Your task to perform on an android device: turn notification dots on Image 0: 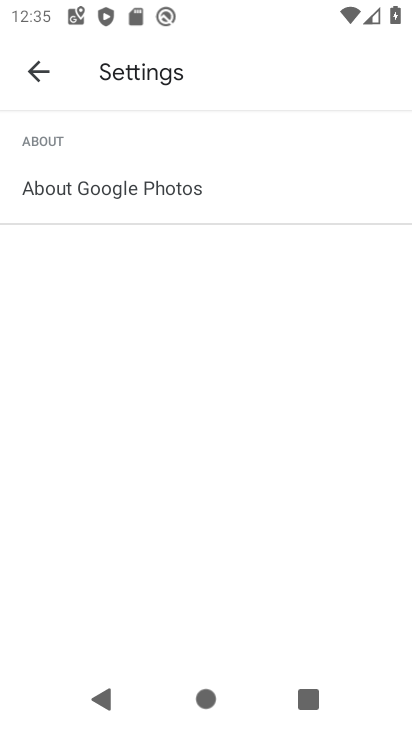
Step 0: press home button
Your task to perform on an android device: turn notification dots on Image 1: 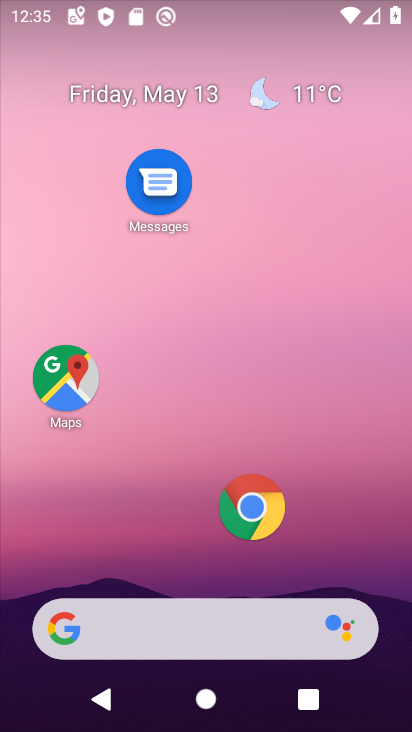
Step 1: drag from (212, 591) to (255, 28)
Your task to perform on an android device: turn notification dots on Image 2: 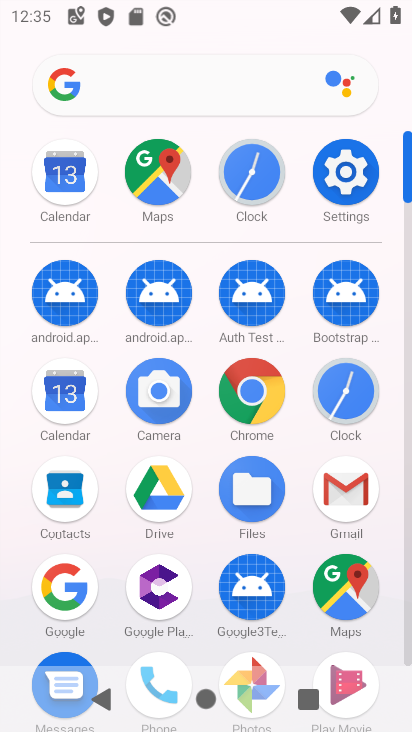
Step 2: click (336, 204)
Your task to perform on an android device: turn notification dots on Image 3: 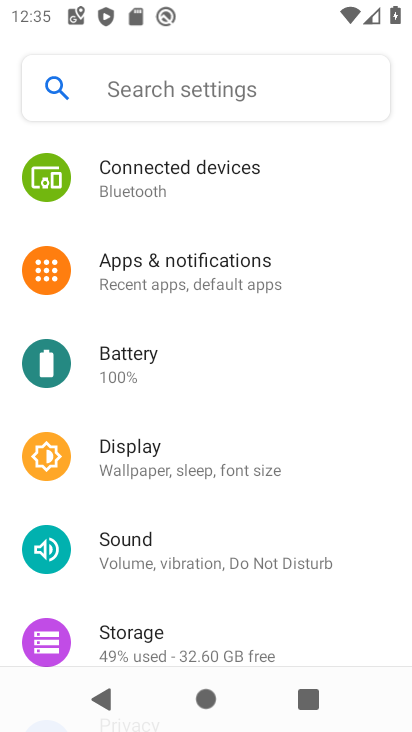
Step 3: click (178, 278)
Your task to perform on an android device: turn notification dots on Image 4: 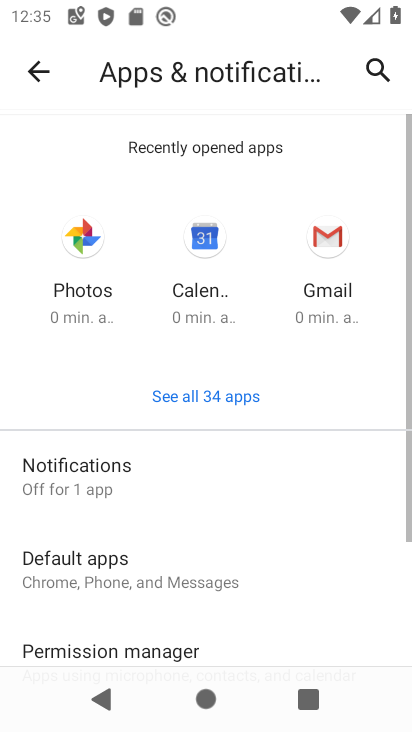
Step 4: click (105, 506)
Your task to perform on an android device: turn notification dots on Image 5: 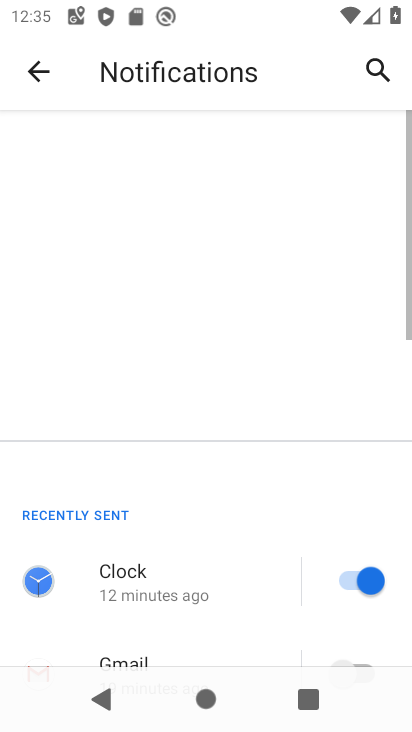
Step 5: drag from (169, 583) to (53, 9)
Your task to perform on an android device: turn notification dots on Image 6: 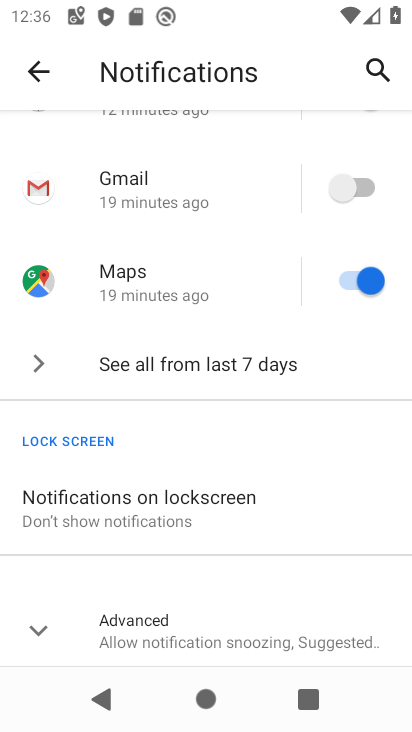
Step 6: click (157, 590)
Your task to perform on an android device: turn notification dots on Image 7: 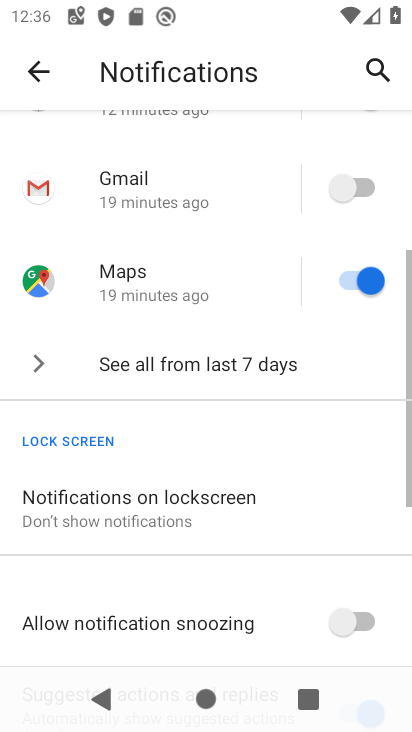
Step 7: task complete